Your task to perform on an android device: turn off picture-in-picture Image 0: 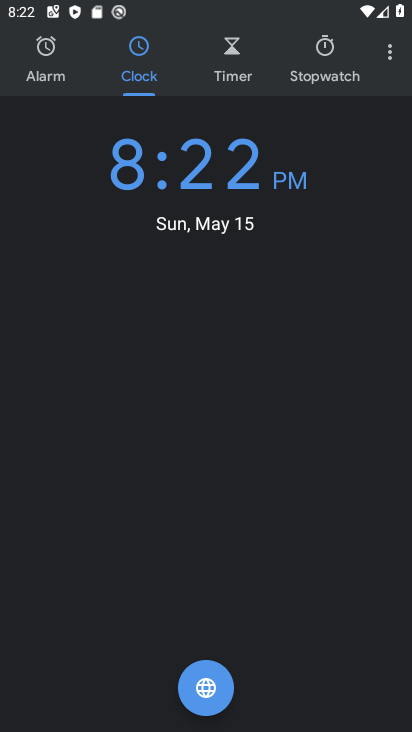
Step 0: press home button
Your task to perform on an android device: turn off picture-in-picture Image 1: 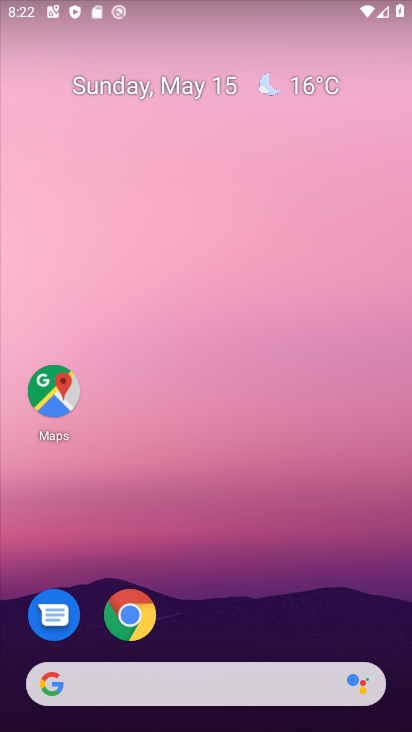
Step 1: click (134, 606)
Your task to perform on an android device: turn off picture-in-picture Image 2: 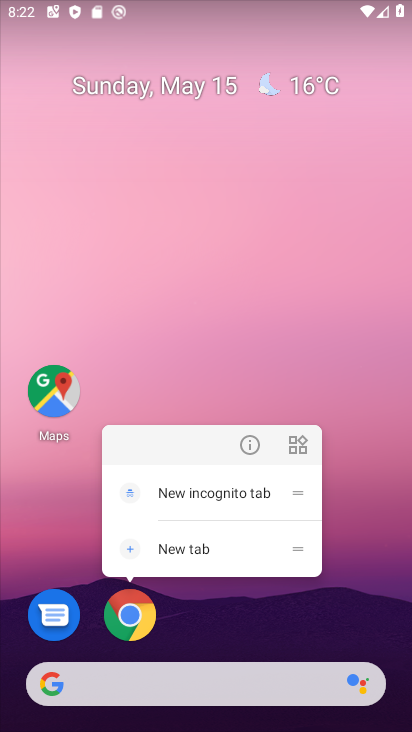
Step 2: click (246, 452)
Your task to perform on an android device: turn off picture-in-picture Image 3: 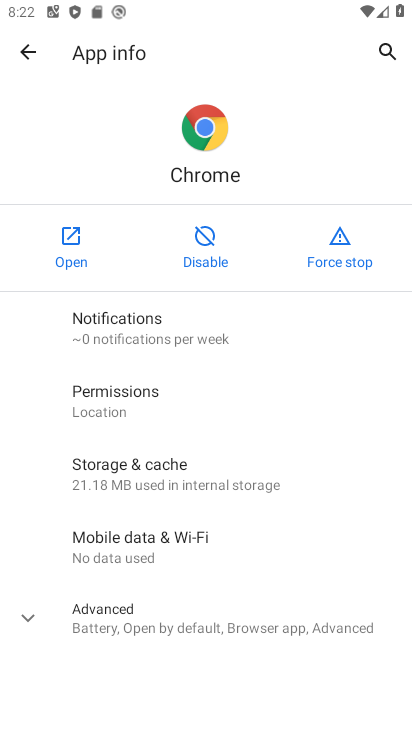
Step 3: drag from (293, 587) to (264, 244)
Your task to perform on an android device: turn off picture-in-picture Image 4: 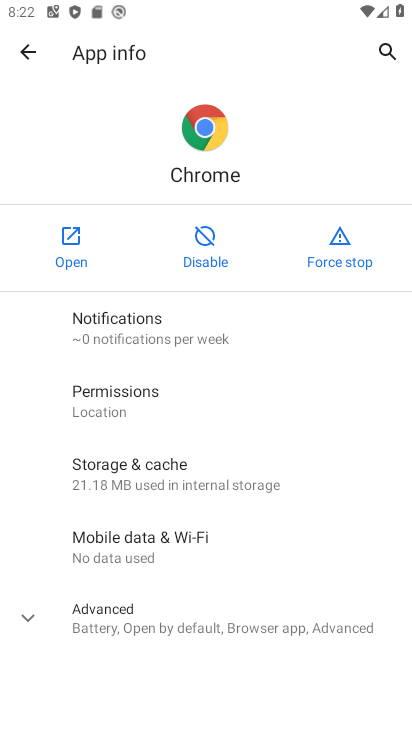
Step 4: click (27, 618)
Your task to perform on an android device: turn off picture-in-picture Image 5: 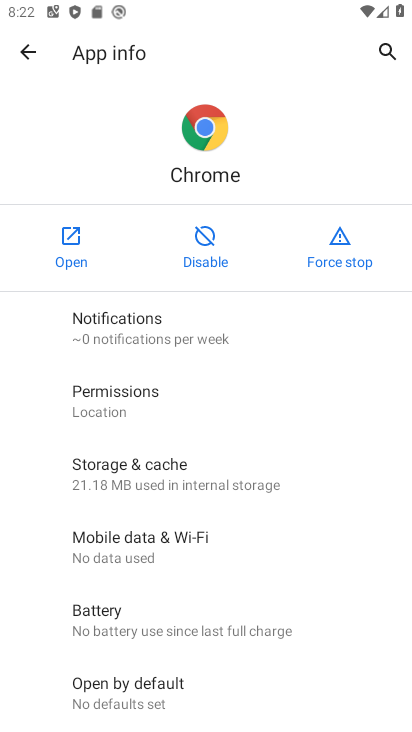
Step 5: drag from (210, 642) to (221, 332)
Your task to perform on an android device: turn off picture-in-picture Image 6: 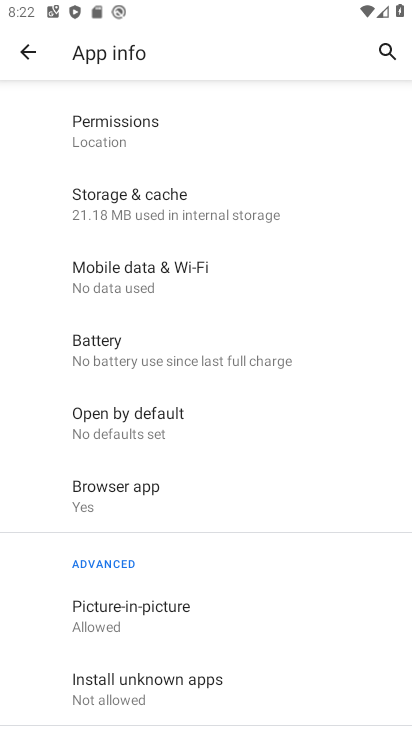
Step 6: click (183, 615)
Your task to perform on an android device: turn off picture-in-picture Image 7: 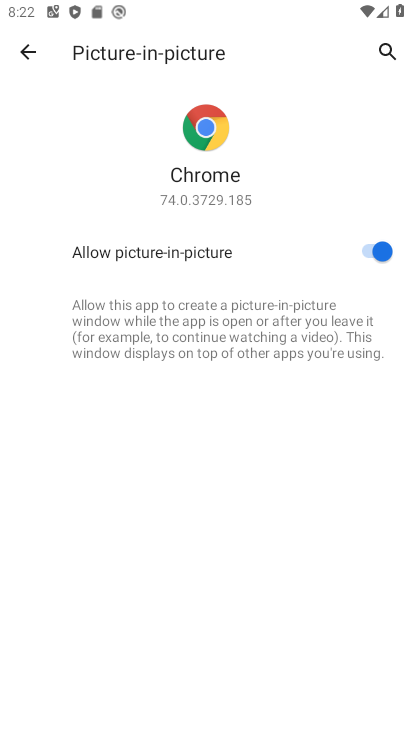
Step 7: click (368, 243)
Your task to perform on an android device: turn off picture-in-picture Image 8: 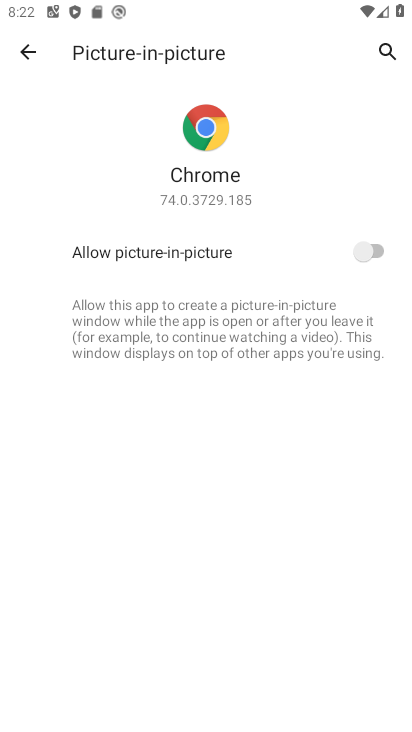
Step 8: task complete